Your task to perform on an android device: open chrome privacy settings Image 0: 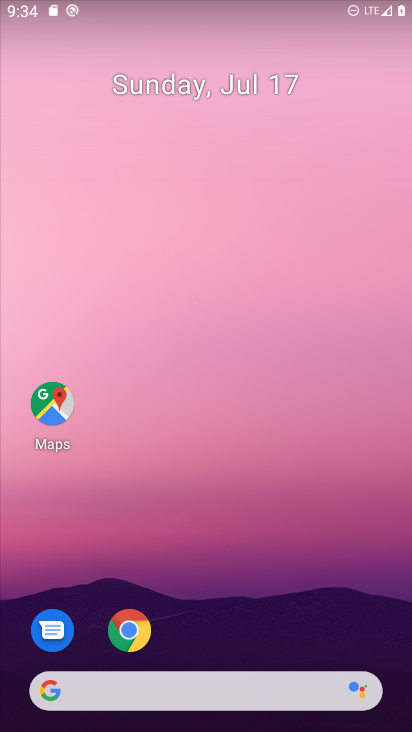
Step 0: drag from (173, 683) to (178, 197)
Your task to perform on an android device: open chrome privacy settings Image 1: 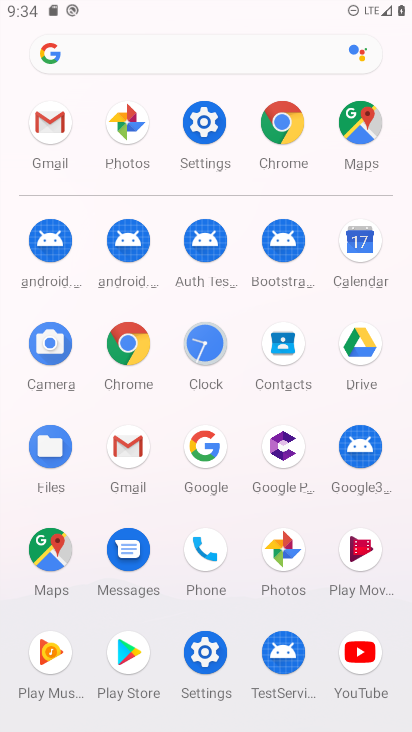
Step 1: click (287, 112)
Your task to perform on an android device: open chrome privacy settings Image 2: 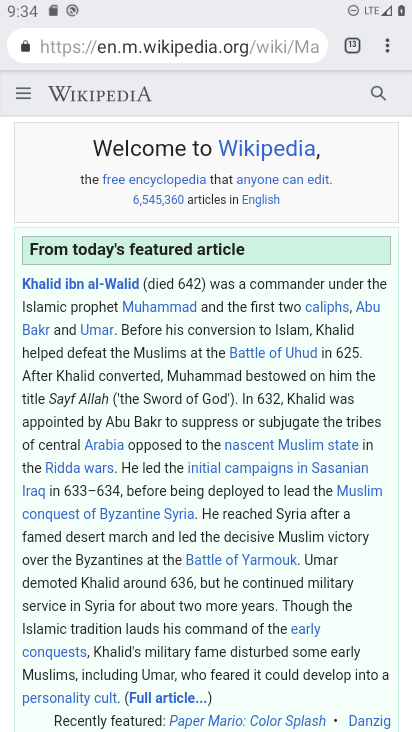
Step 2: click (393, 39)
Your task to perform on an android device: open chrome privacy settings Image 3: 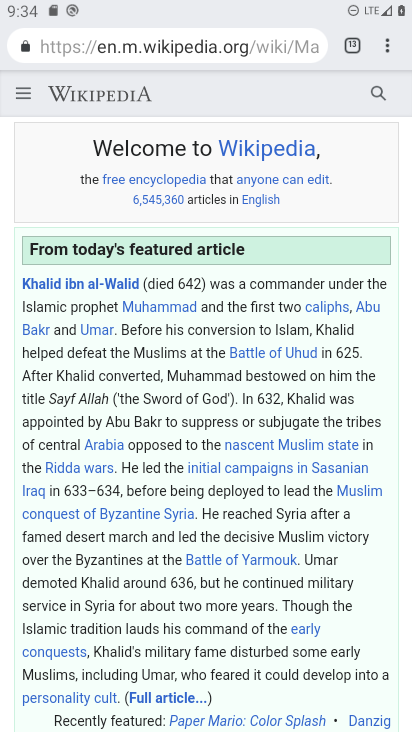
Step 3: click (393, 39)
Your task to perform on an android device: open chrome privacy settings Image 4: 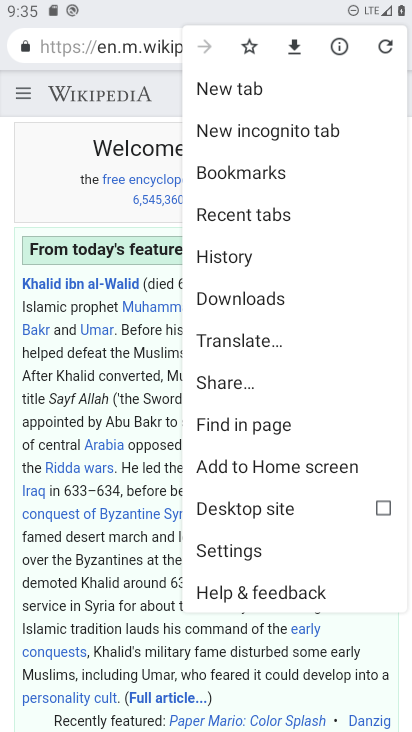
Step 4: click (258, 556)
Your task to perform on an android device: open chrome privacy settings Image 5: 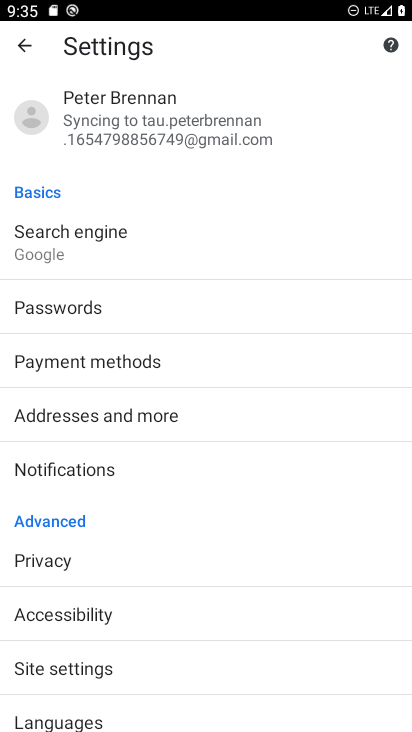
Step 5: click (65, 562)
Your task to perform on an android device: open chrome privacy settings Image 6: 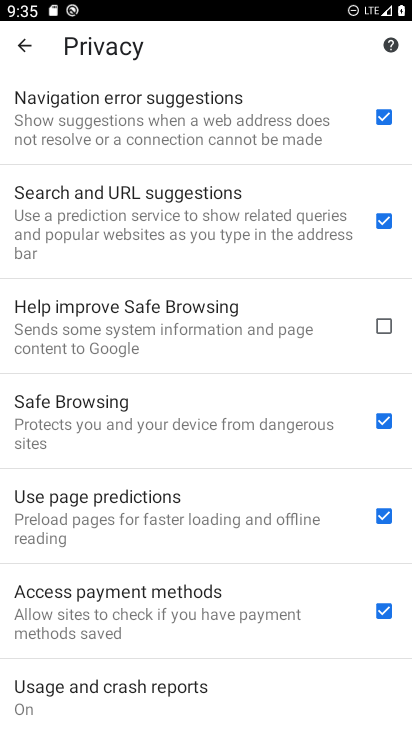
Step 6: task complete